Your task to perform on an android device: all mails in gmail Image 0: 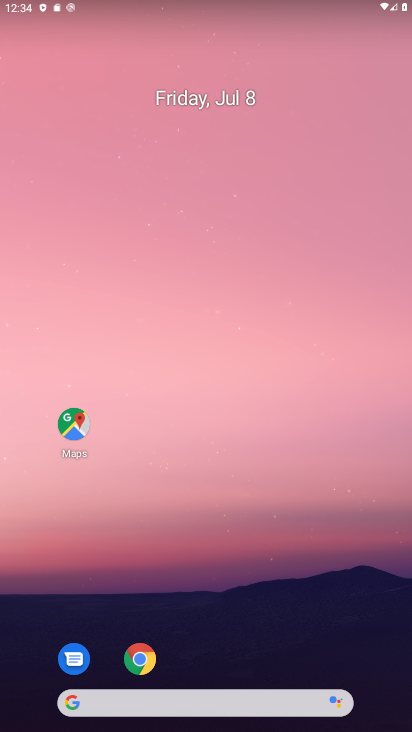
Step 0: drag from (264, 552) to (298, 162)
Your task to perform on an android device: all mails in gmail Image 1: 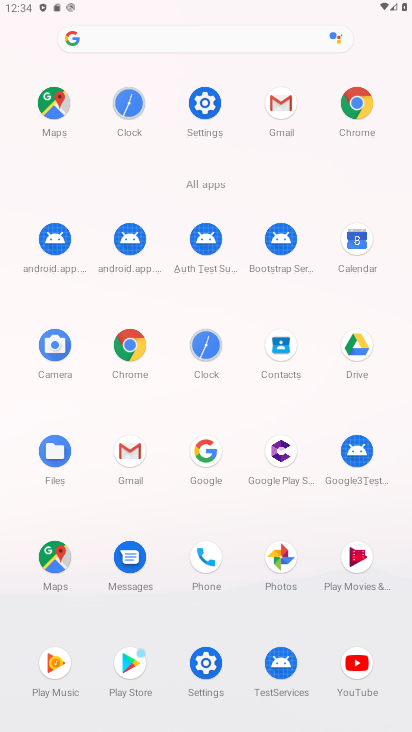
Step 1: click (127, 451)
Your task to perform on an android device: all mails in gmail Image 2: 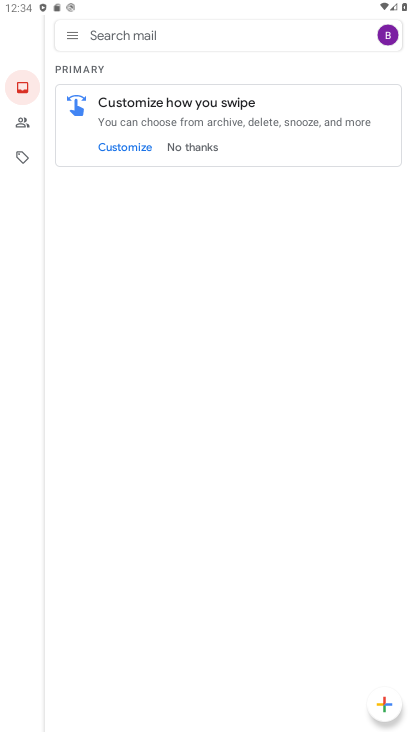
Step 2: click (73, 31)
Your task to perform on an android device: all mails in gmail Image 3: 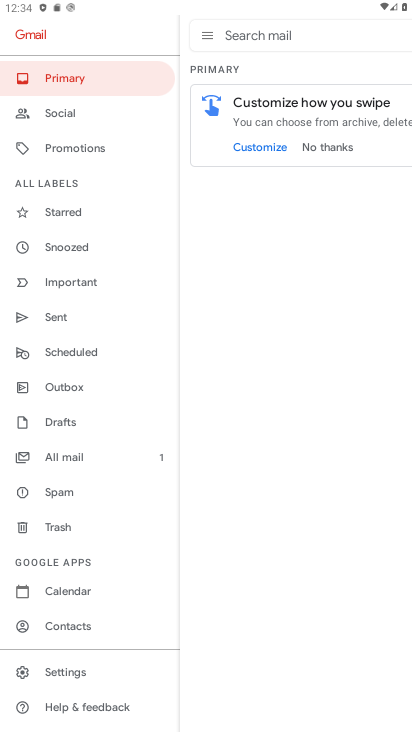
Step 3: drag from (114, 618) to (68, 430)
Your task to perform on an android device: all mails in gmail Image 4: 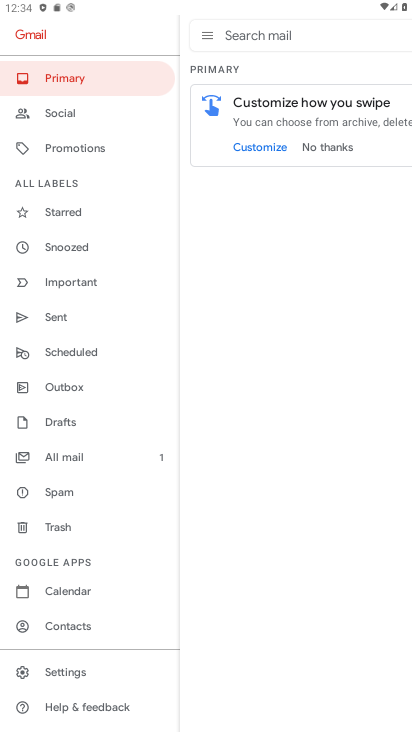
Step 4: click (72, 462)
Your task to perform on an android device: all mails in gmail Image 5: 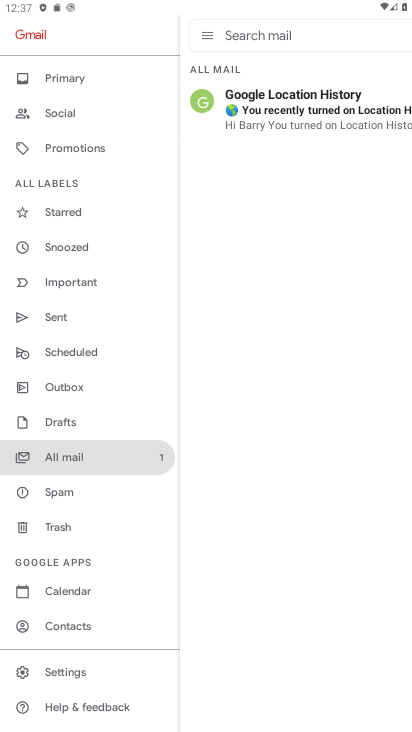
Step 5: task complete